Your task to perform on an android device: Empty the shopping cart on costco. Image 0: 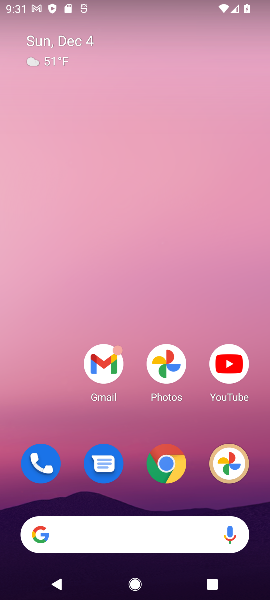
Step 0: click (78, 545)
Your task to perform on an android device: Empty the shopping cart on costco. Image 1: 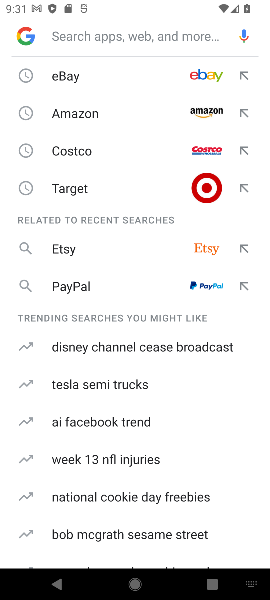
Step 1: type "costco.com"
Your task to perform on an android device: Empty the shopping cart on costco. Image 2: 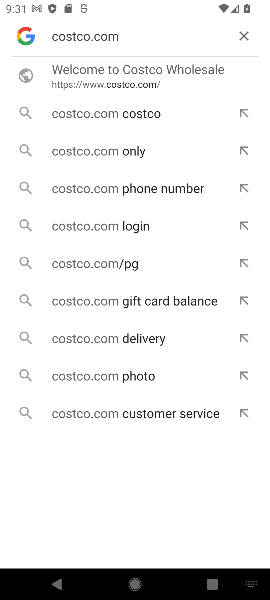
Step 2: click (158, 97)
Your task to perform on an android device: Empty the shopping cart on costco. Image 3: 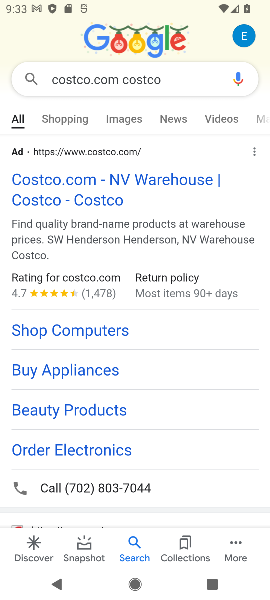
Step 3: click (137, 200)
Your task to perform on an android device: Empty the shopping cart on costco. Image 4: 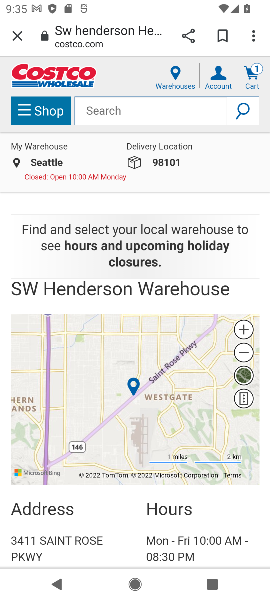
Step 4: task complete